Your task to perform on an android device: turn on notifications settings in the gmail app Image 0: 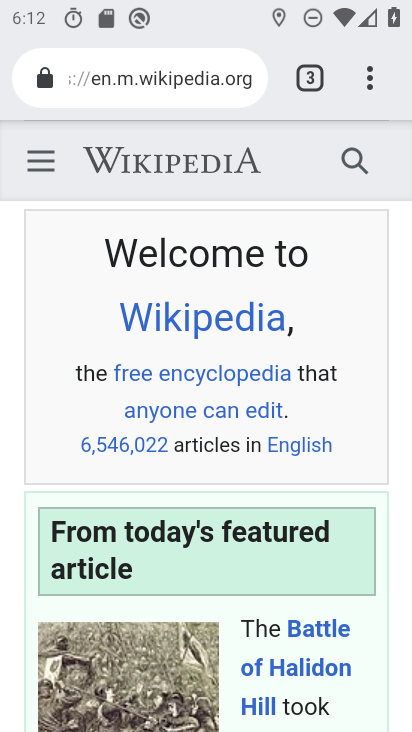
Step 0: press back button
Your task to perform on an android device: turn on notifications settings in the gmail app Image 1: 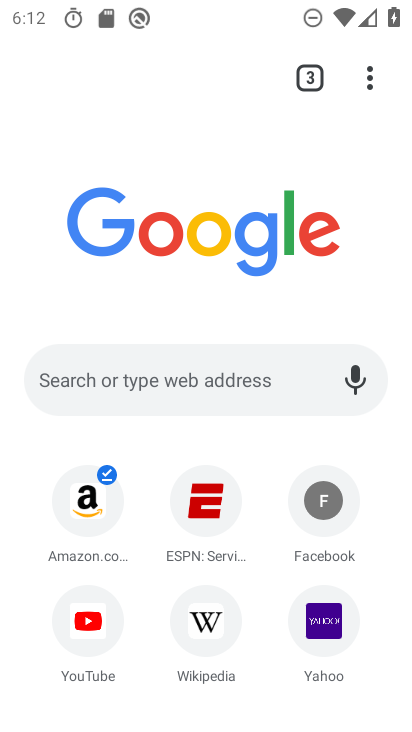
Step 1: press back button
Your task to perform on an android device: turn on notifications settings in the gmail app Image 2: 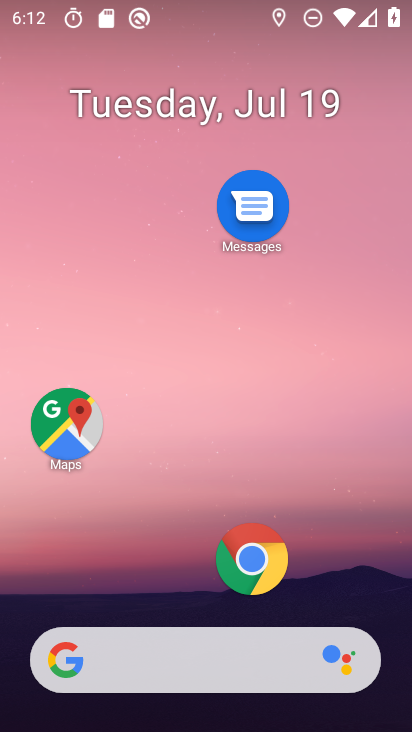
Step 2: drag from (118, 468) to (178, 17)
Your task to perform on an android device: turn on notifications settings in the gmail app Image 3: 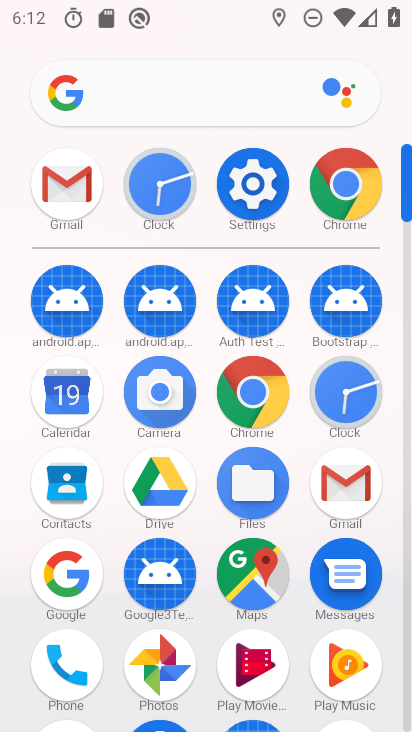
Step 3: click (58, 196)
Your task to perform on an android device: turn on notifications settings in the gmail app Image 4: 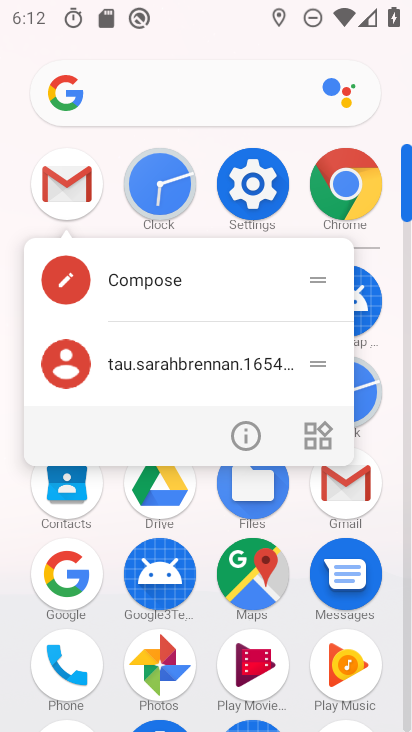
Step 4: click (246, 435)
Your task to perform on an android device: turn on notifications settings in the gmail app Image 5: 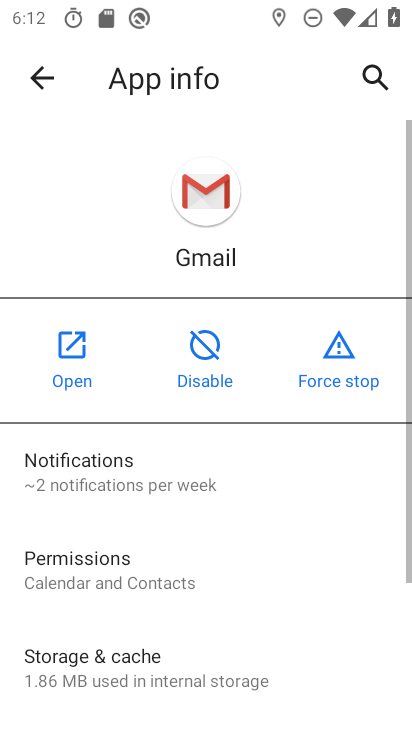
Step 5: click (89, 466)
Your task to perform on an android device: turn on notifications settings in the gmail app Image 6: 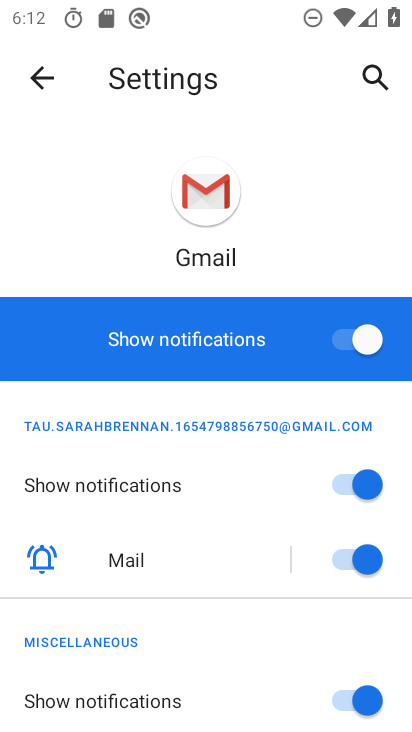
Step 6: task complete